Your task to perform on an android device: set the timer Image 0: 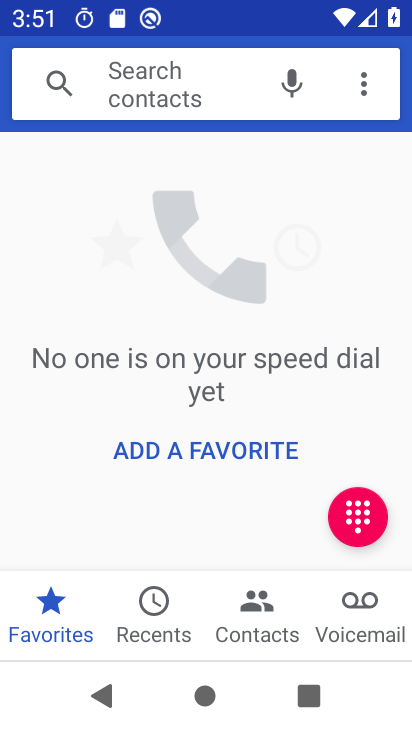
Step 0: press home button
Your task to perform on an android device: set the timer Image 1: 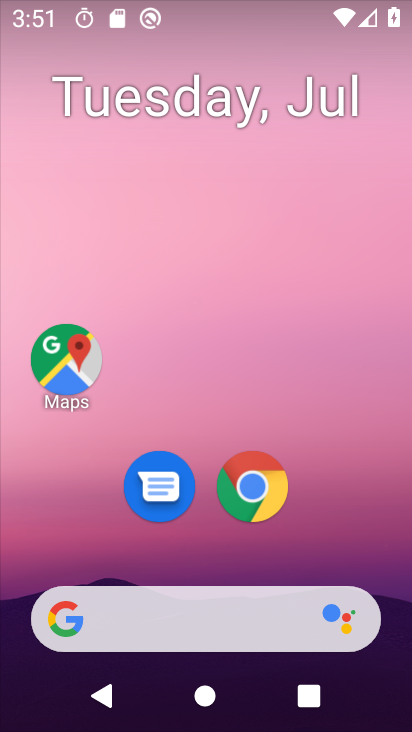
Step 1: drag from (357, 546) to (352, 48)
Your task to perform on an android device: set the timer Image 2: 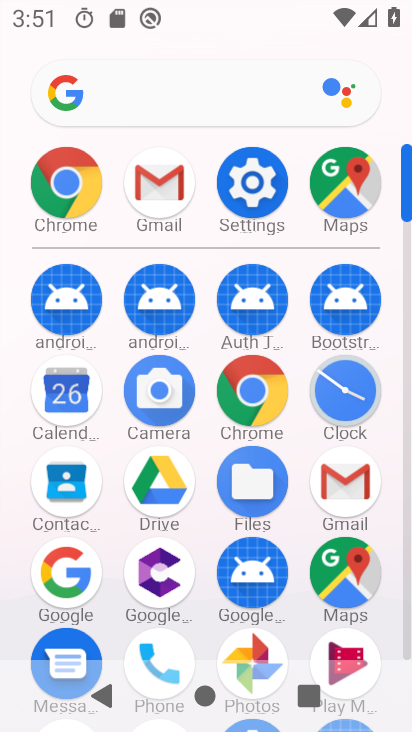
Step 2: click (353, 395)
Your task to perform on an android device: set the timer Image 3: 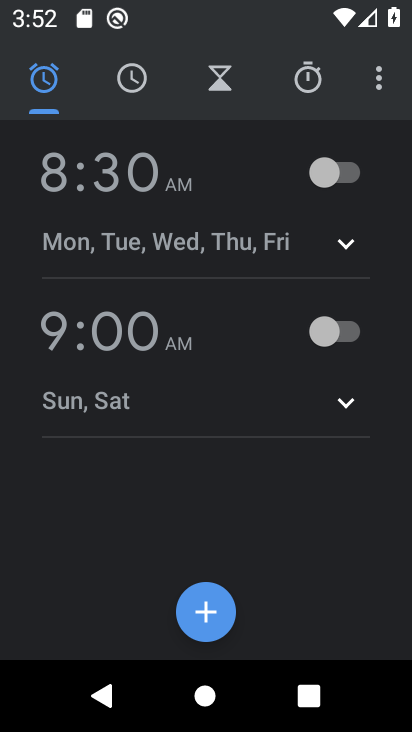
Step 3: click (201, 603)
Your task to perform on an android device: set the timer Image 4: 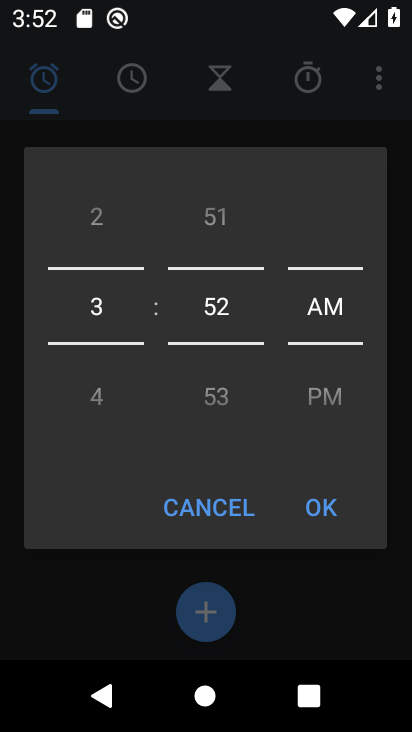
Step 4: click (316, 508)
Your task to perform on an android device: set the timer Image 5: 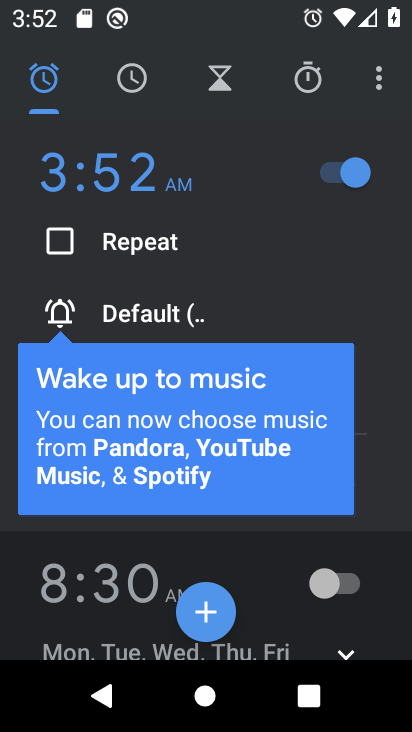
Step 5: task complete